Your task to perform on an android device: open app "DoorDash - Dasher" Image 0: 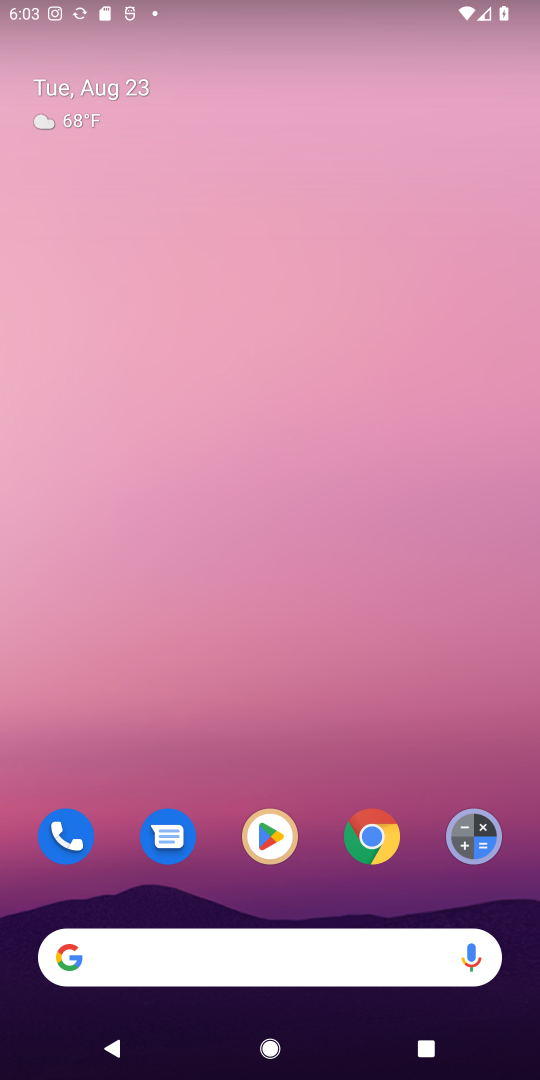
Step 0: click (270, 831)
Your task to perform on an android device: open app "DoorDash - Dasher" Image 1: 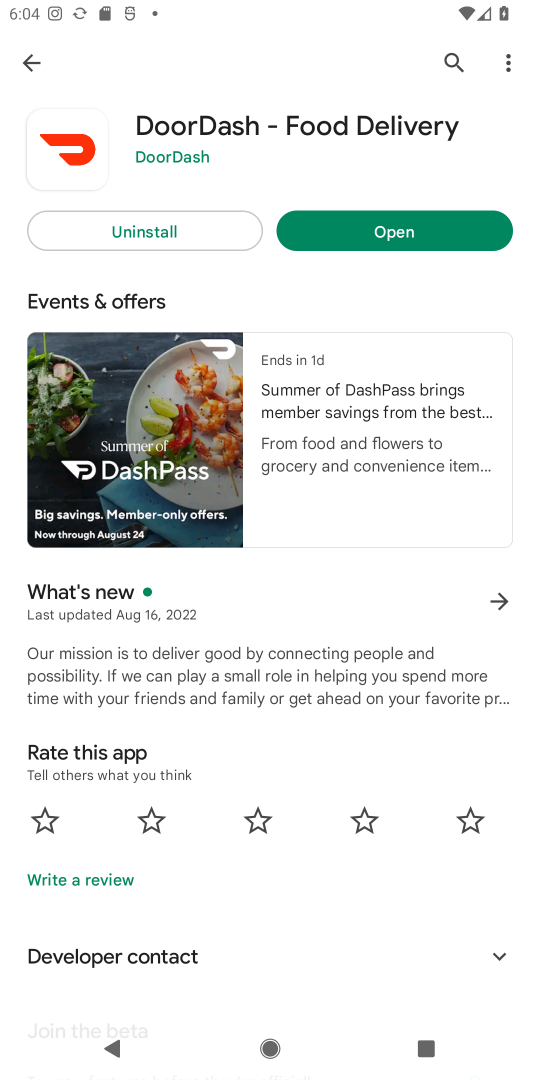
Step 1: click (448, 49)
Your task to perform on an android device: open app "DoorDash - Dasher" Image 2: 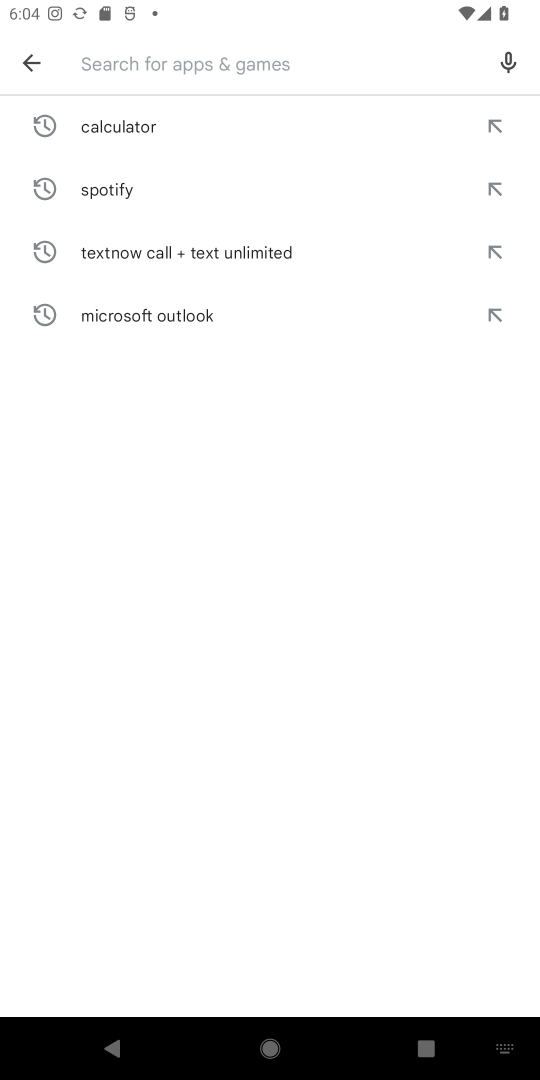
Step 2: type "DoorDash - Dasher"
Your task to perform on an android device: open app "DoorDash - Dasher" Image 3: 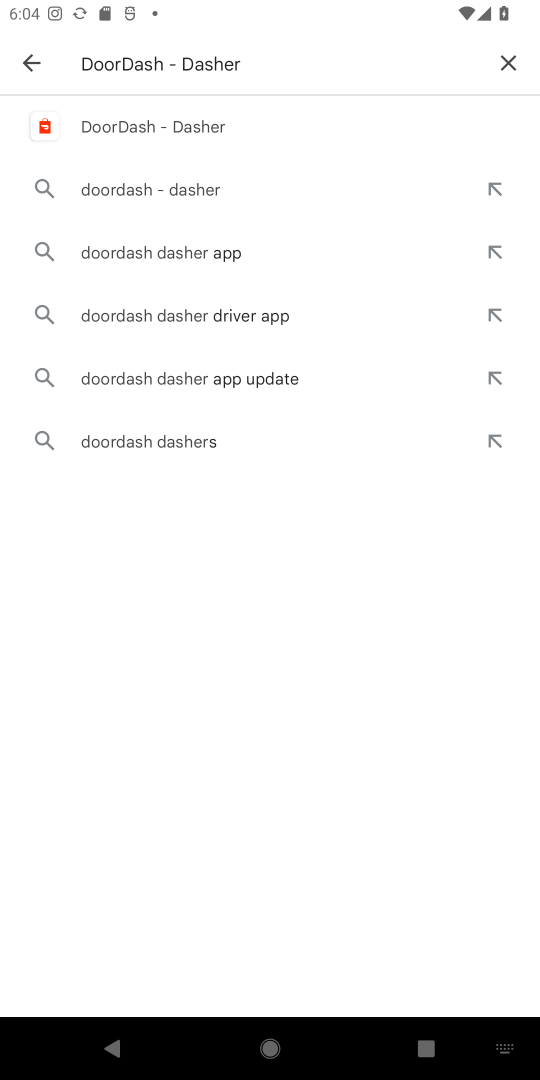
Step 3: click (154, 130)
Your task to perform on an android device: open app "DoorDash - Dasher" Image 4: 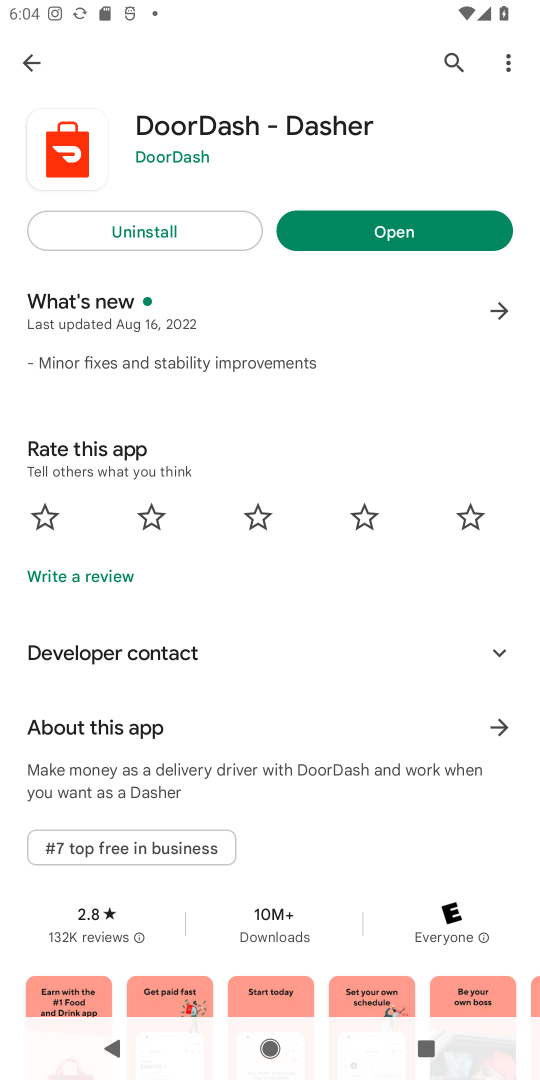
Step 4: click (389, 237)
Your task to perform on an android device: open app "DoorDash - Dasher" Image 5: 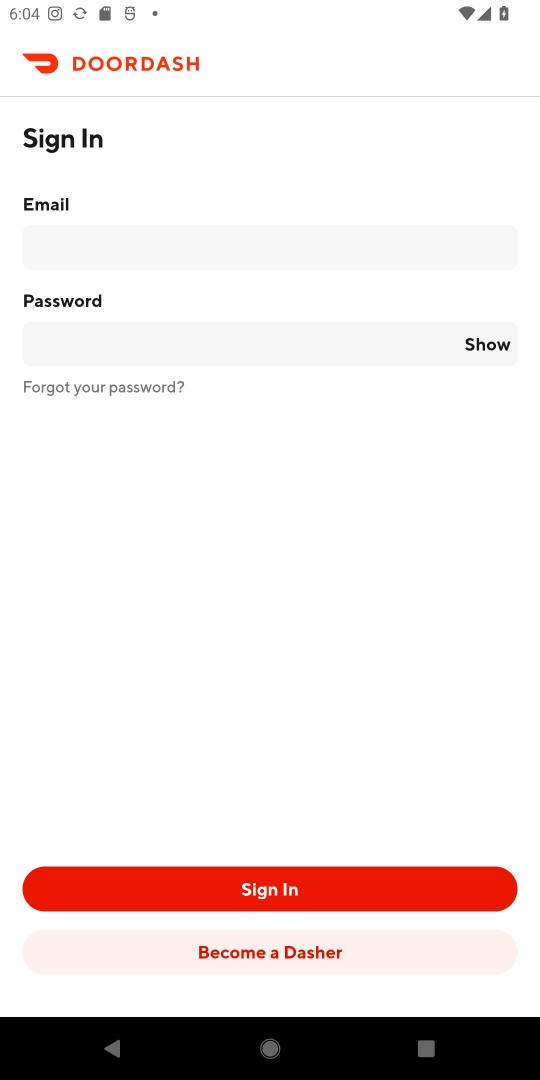
Step 5: task complete